Your task to perform on an android device: turn on priority inbox in the gmail app Image 0: 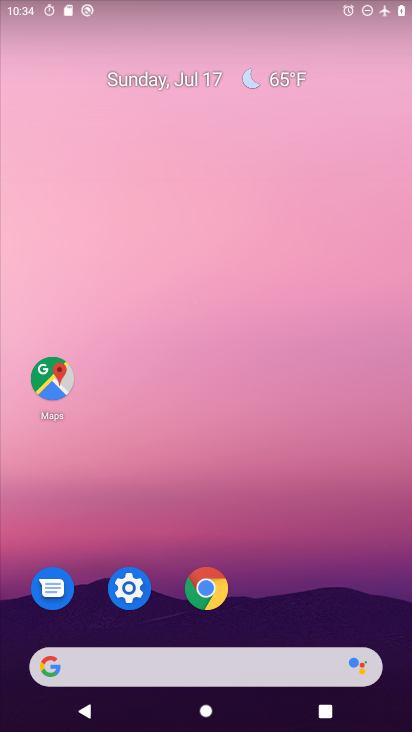
Step 0: click (341, 280)
Your task to perform on an android device: turn on priority inbox in the gmail app Image 1: 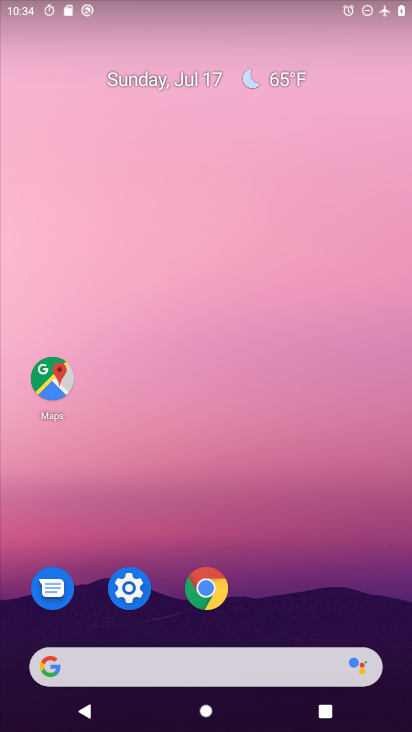
Step 1: drag from (170, 644) to (139, 5)
Your task to perform on an android device: turn on priority inbox in the gmail app Image 2: 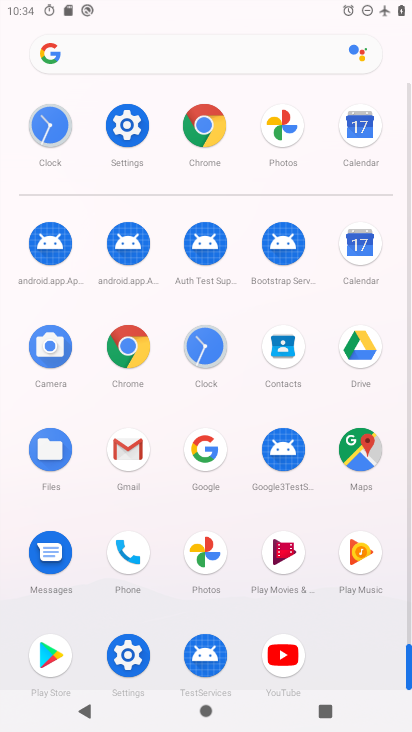
Step 2: click (130, 450)
Your task to perform on an android device: turn on priority inbox in the gmail app Image 3: 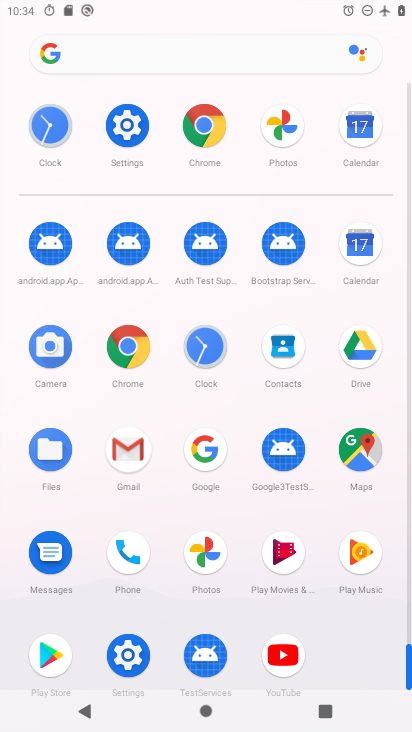
Step 3: click (131, 448)
Your task to perform on an android device: turn on priority inbox in the gmail app Image 4: 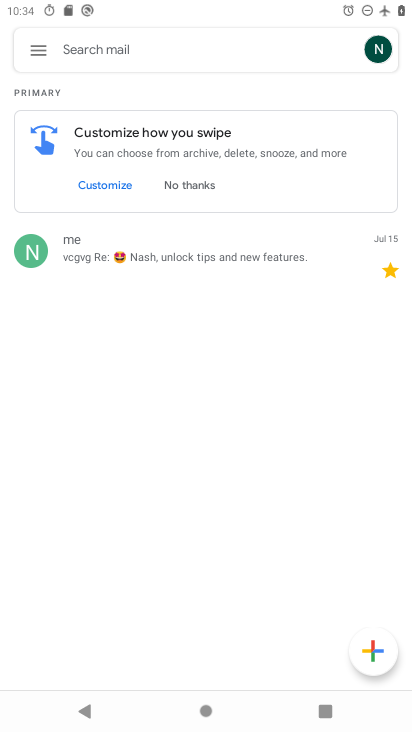
Step 4: click (33, 49)
Your task to perform on an android device: turn on priority inbox in the gmail app Image 5: 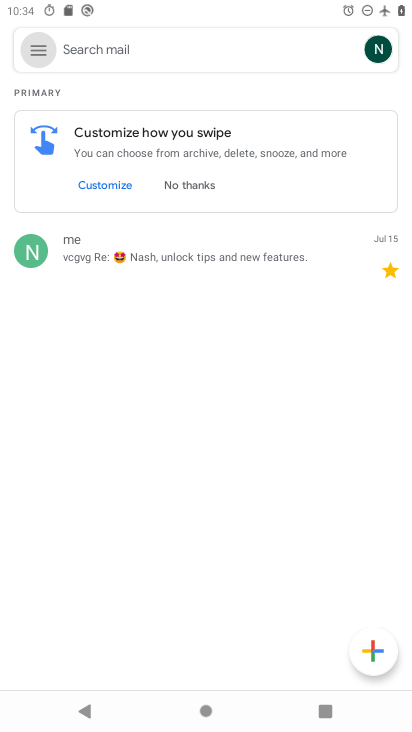
Step 5: click (33, 49)
Your task to perform on an android device: turn on priority inbox in the gmail app Image 6: 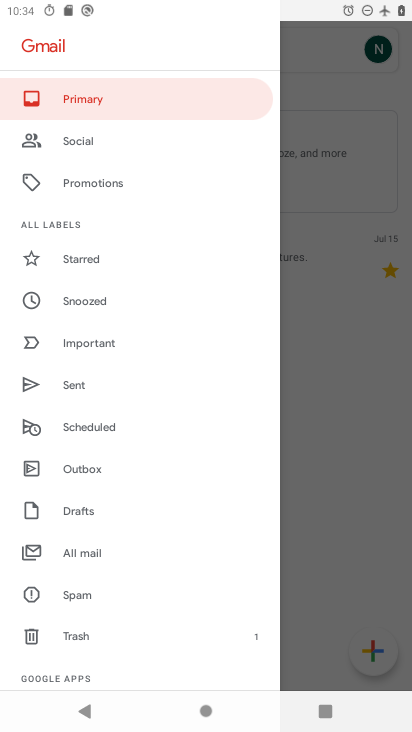
Step 6: drag from (114, 489) to (90, 222)
Your task to perform on an android device: turn on priority inbox in the gmail app Image 7: 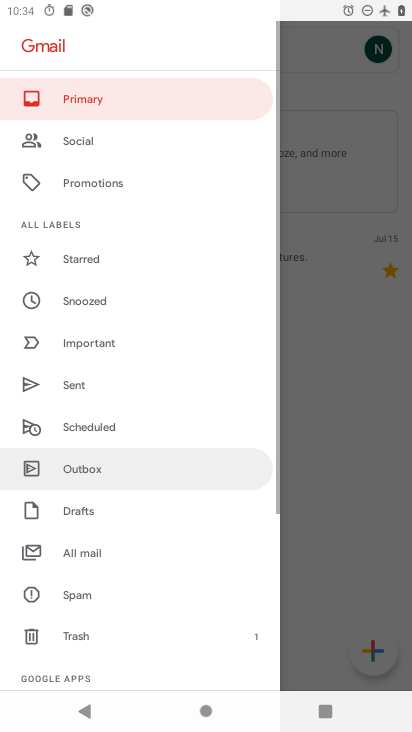
Step 7: drag from (121, 457) to (122, 306)
Your task to perform on an android device: turn on priority inbox in the gmail app Image 8: 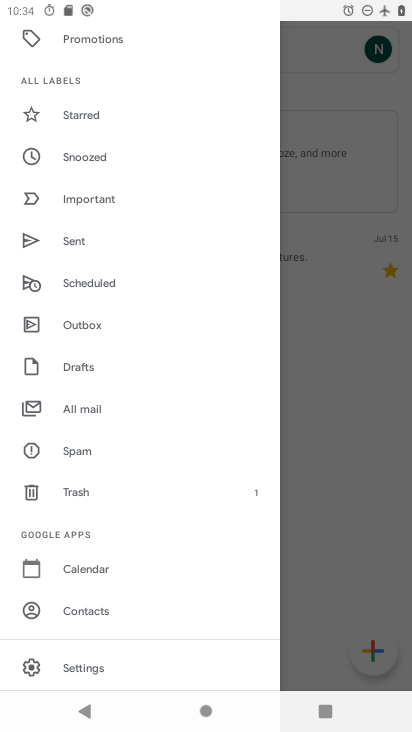
Step 8: drag from (128, 495) to (91, 138)
Your task to perform on an android device: turn on priority inbox in the gmail app Image 9: 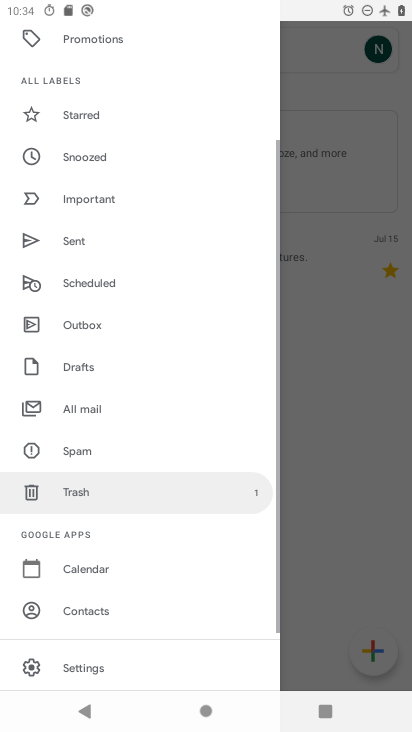
Step 9: drag from (80, 463) to (80, 158)
Your task to perform on an android device: turn on priority inbox in the gmail app Image 10: 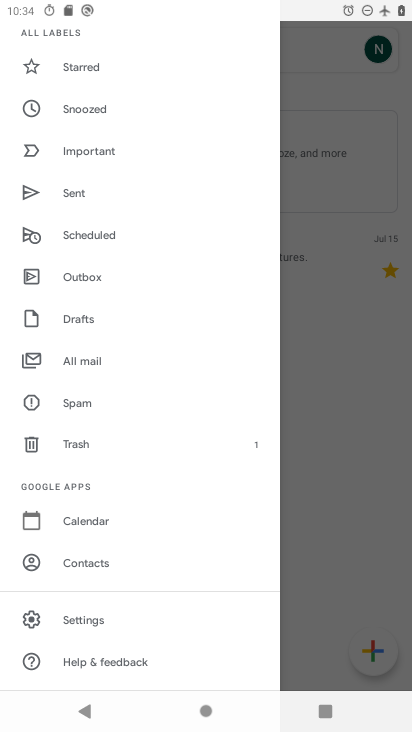
Step 10: click (78, 618)
Your task to perform on an android device: turn on priority inbox in the gmail app Image 11: 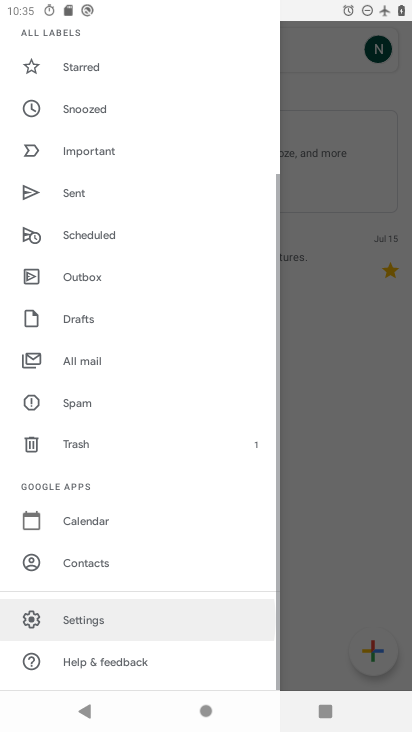
Step 11: click (78, 618)
Your task to perform on an android device: turn on priority inbox in the gmail app Image 12: 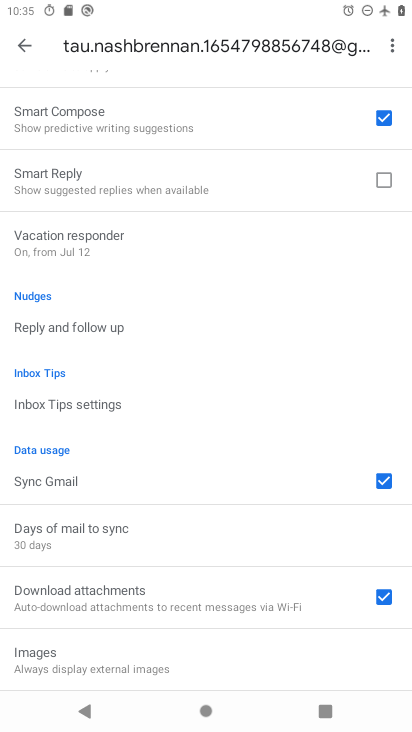
Step 12: drag from (120, 486) to (46, 104)
Your task to perform on an android device: turn on priority inbox in the gmail app Image 13: 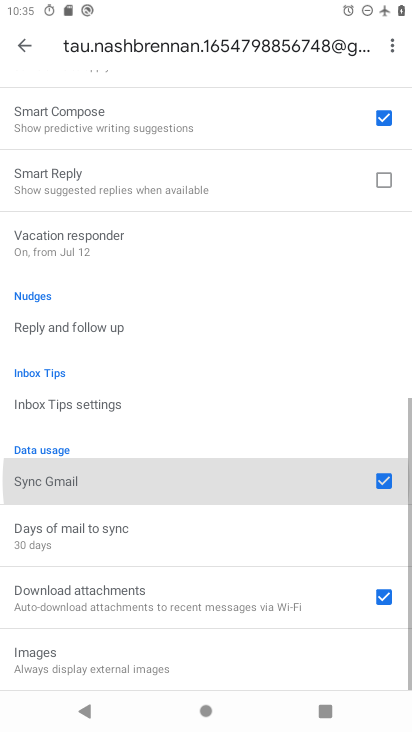
Step 13: drag from (122, 537) to (134, 204)
Your task to perform on an android device: turn on priority inbox in the gmail app Image 14: 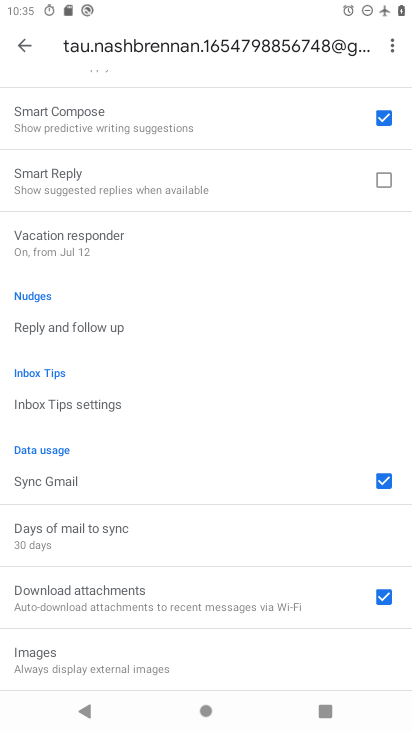
Step 14: drag from (110, 683) to (49, 195)
Your task to perform on an android device: turn on priority inbox in the gmail app Image 15: 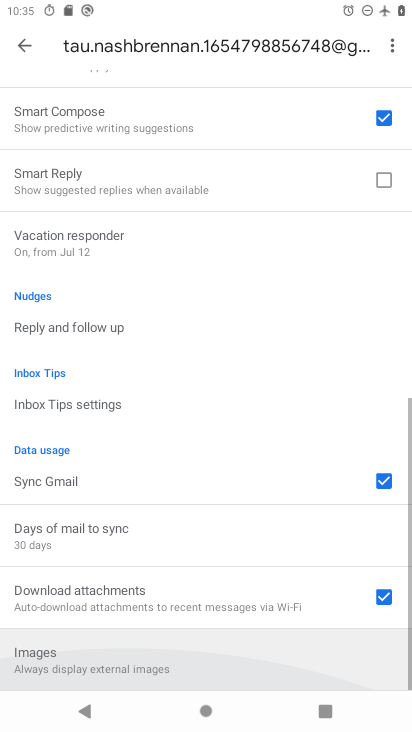
Step 15: click (85, 207)
Your task to perform on an android device: turn on priority inbox in the gmail app Image 16: 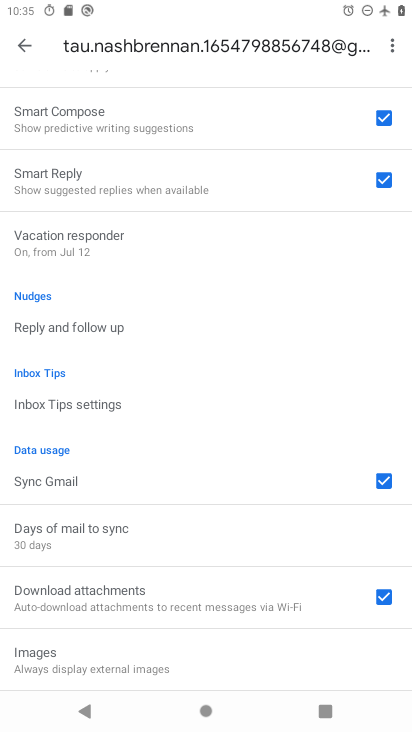
Step 16: drag from (120, 397) to (135, 56)
Your task to perform on an android device: turn on priority inbox in the gmail app Image 17: 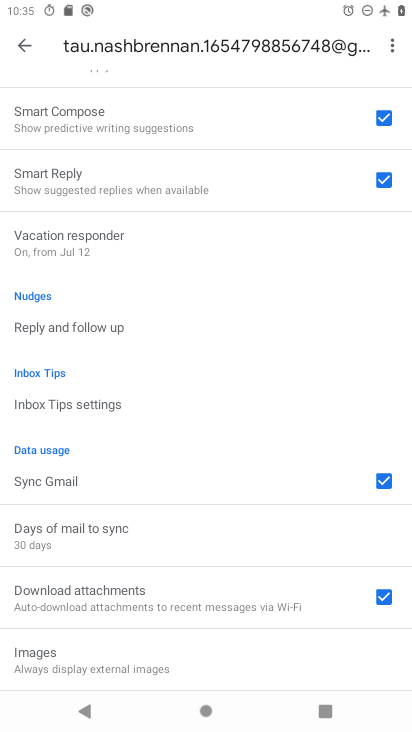
Step 17: drag from (74, 224) to (76, 560)
Your task to perform on an android device: turn on priority inbox in the gmail app Image 18: 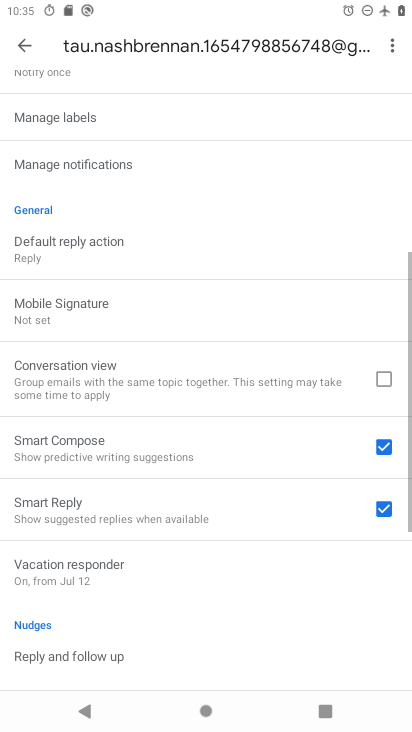
Step 18: drag from (115, 205) to (69, 706)
Your task to perform on an android device: turn on priority inbox in the gmail app Image 19: 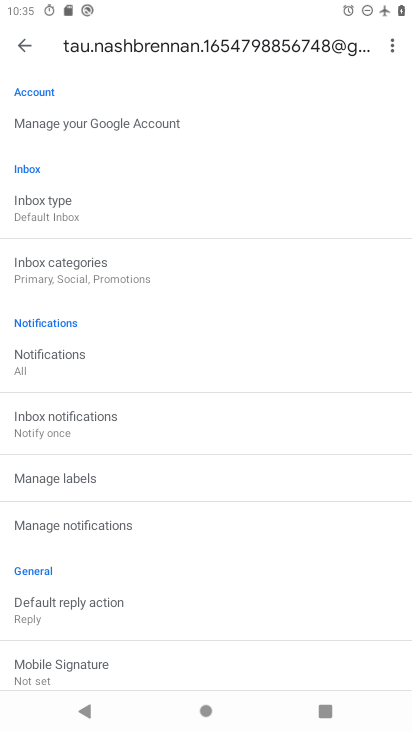
Step 19: drag from (107, 248) to (50, 695)
Your task to perform on an android device: turn on priority inbox in the gmail app Image 20: 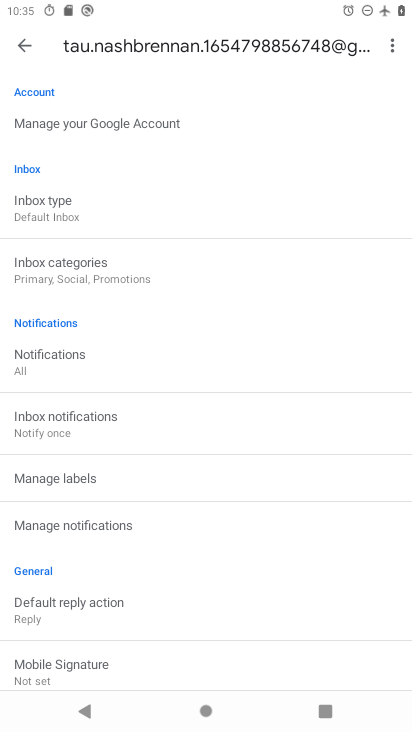
Step 20: click (72, 205)
Your task to perform on an android device: turn on priority inbox in the gmail app Image 21: 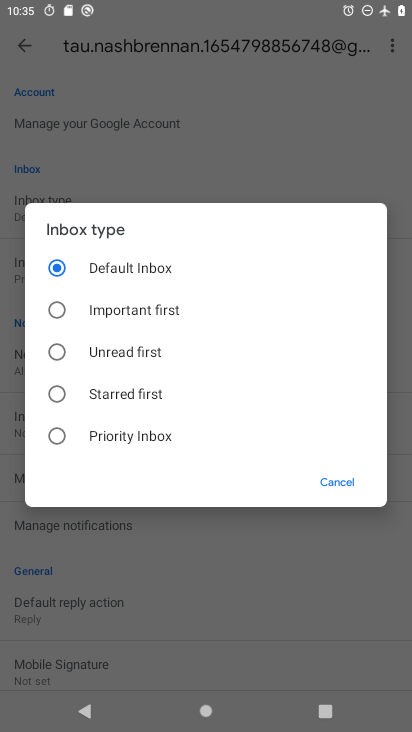
Step 21: click (59, 434)
Your task to perform on an android device: turn on priority inbox in the gmail app Image 22: 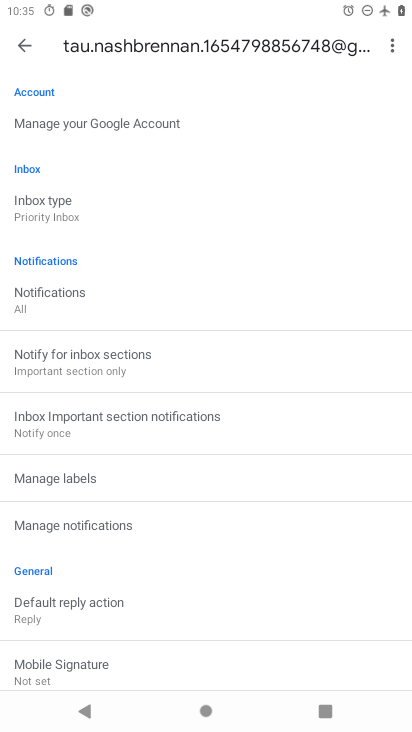
Step 22: task complete